Your task to perform on an android device: Open Google Maps Image 0: 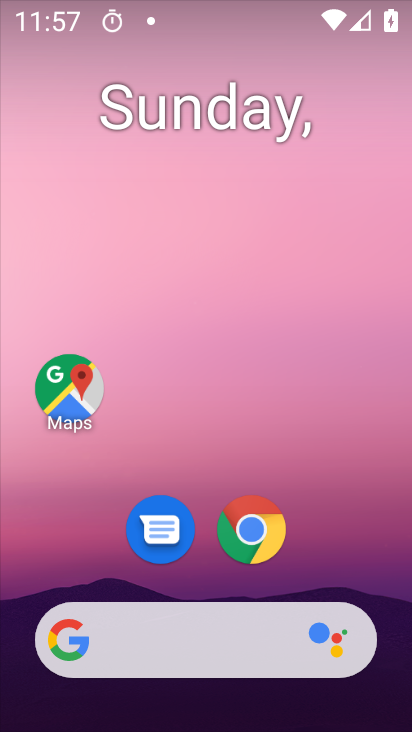
Step 0: drag from (388, 581) to (383, 194)
Your task to perform on an android device: Open Google Maps Image 1: 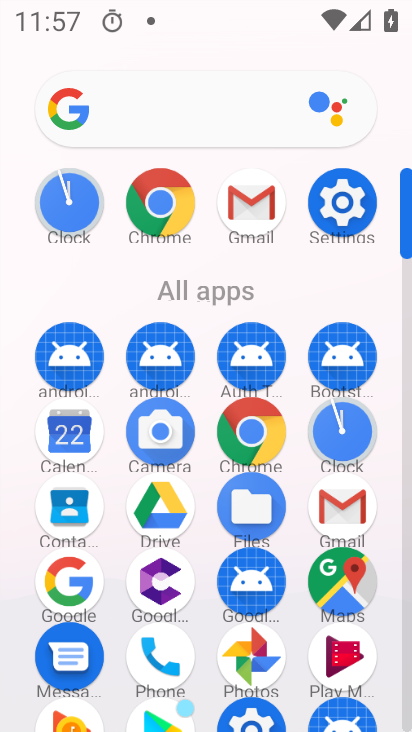
Step 1: click (334, 585)
Your task to perform on an android device: Open Google Maps Image 2: 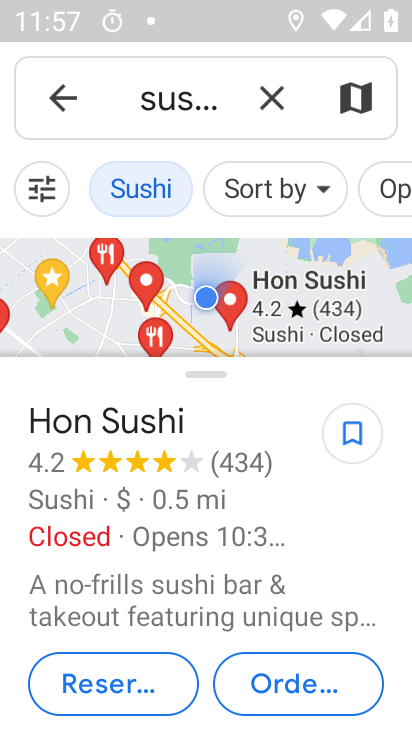
Step 2: task complete